Your task to perform on an android device: read, delete, or share a saved page in the chrome app Image 0: 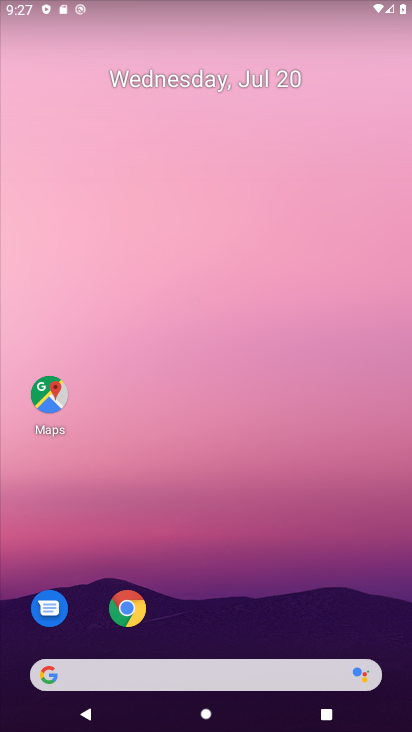
Step 0: drag from (278, 523) to (194, 104)
Your task to perform on an android device: read, delete, or share a saved page in the chrome app Image 1: 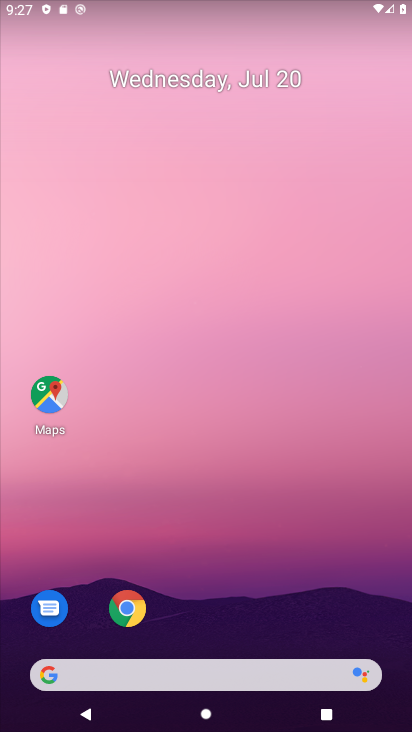
Step 1: drag from (206, 370) to (167, 122)
Your task to perform on an android device: read, delete, or share a saved page in the chrome app Image 2: 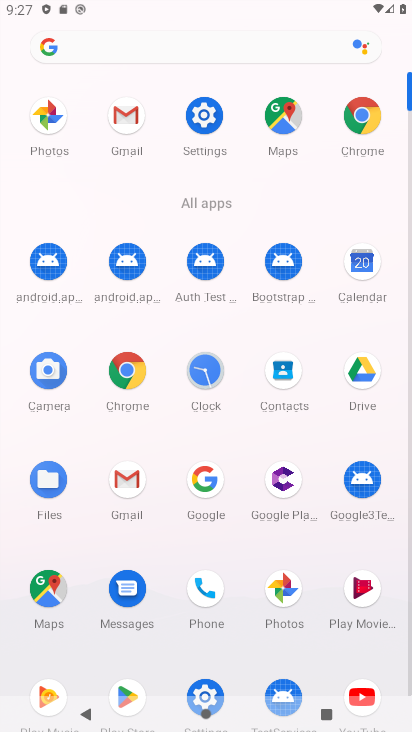
Step 2: click (130, 345)
Your task to perform on an android device: read, delete, or share a saved page in the chrome app Image 3: 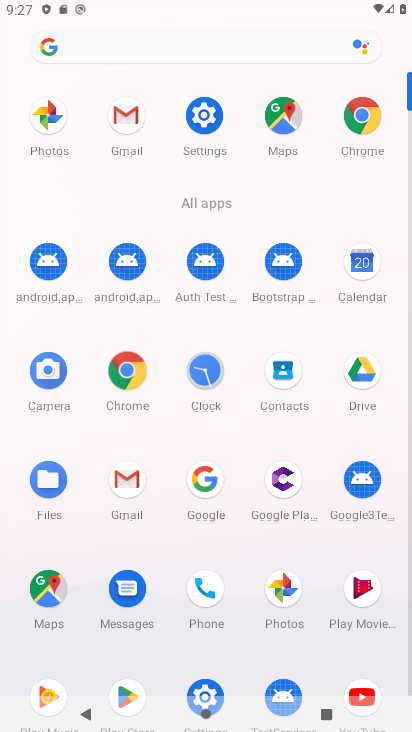
Step 3: click (138, 363)
Your task to perform on an android device: read, delete, or share a saved page in the chrome app Image 4: 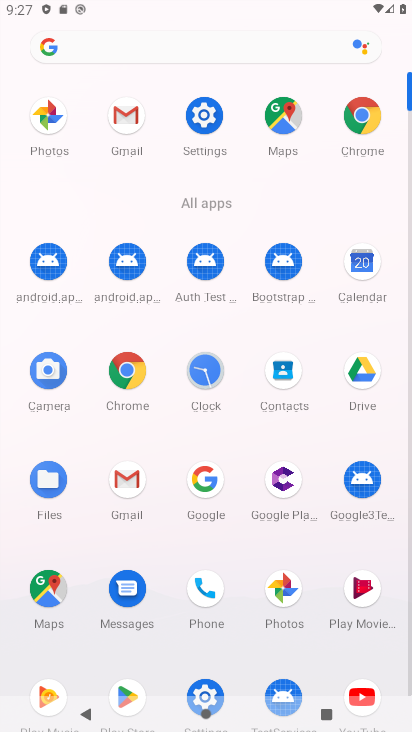
Step 4: click (138, 364)
Your task to perform on an android device: read, delete, or share a saved page in the chrome app Image 5: 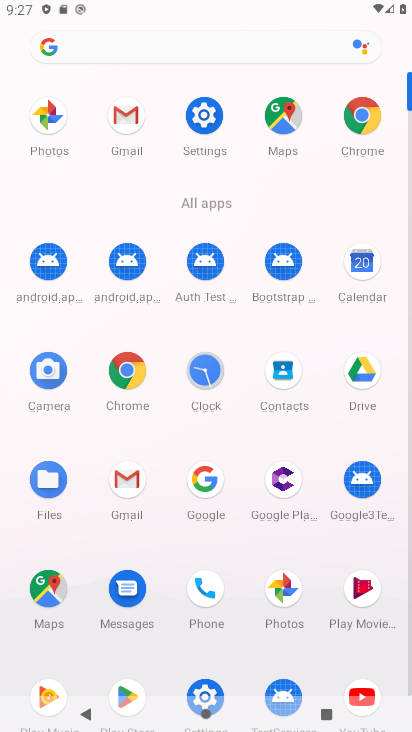
Step 5: click (138, 364)
Your task to perform on an android device: read, delete, or share a saved page in the chrome app Image 6: 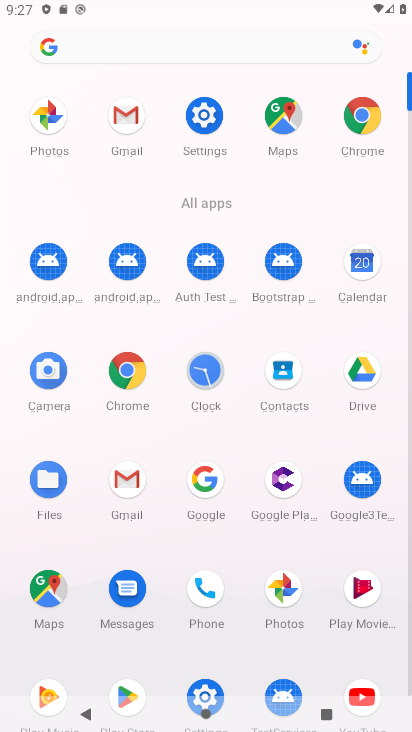
Step 6: click (138, 364)
Your task to perform on an android device: read, delete, or share a saved page in the chrome app Image 7: 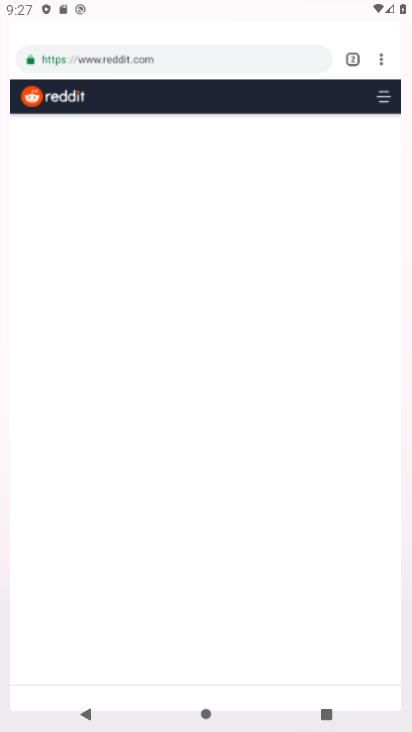
Step 7: click (123, 367)
Your task to perform on an android device: read, delete, or share a saved page in the chrome app Image 8: 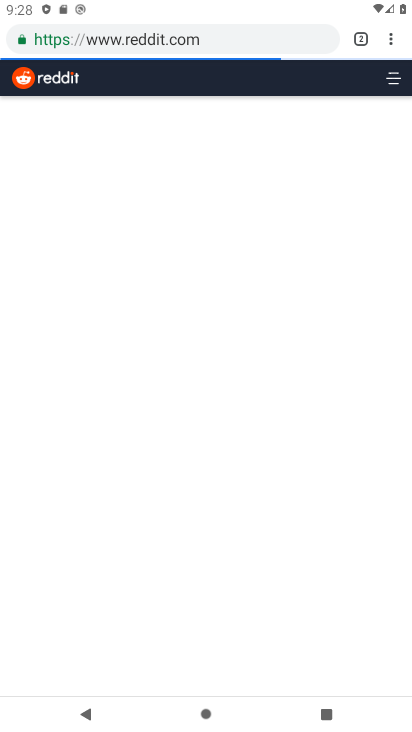
Step 8: drag from (389, 32) to (237, 255)
Your task to perform on an android device: read, delete, or share a saved page in the chrome app Image 9: 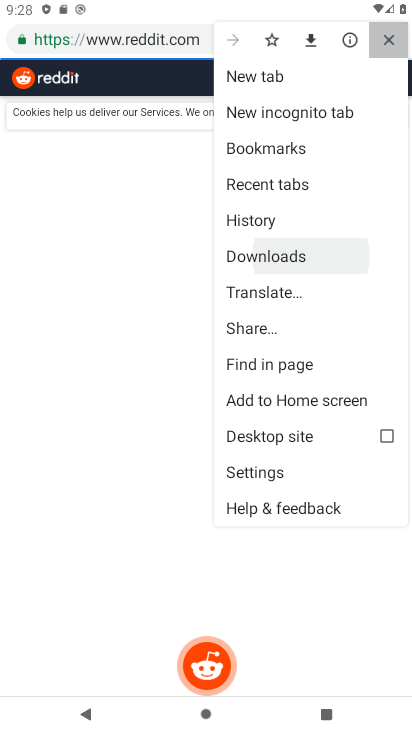
Step 9: click (240, 254)
Your task to perform on an android device: read, delete, or share a saved page in the chrome app Image 10: 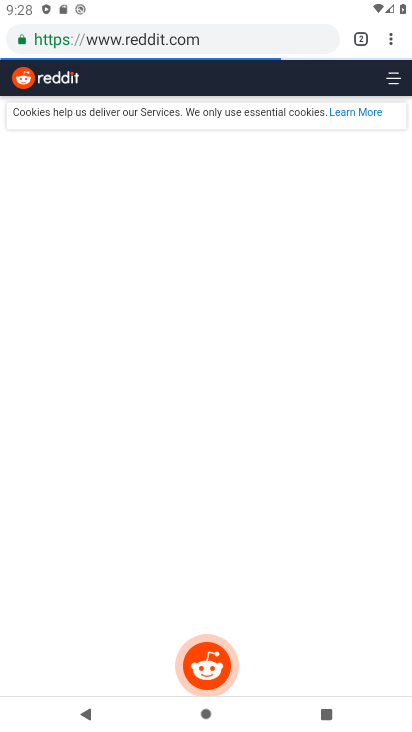
Step 10: click (241, 251)
Your task to perform on an android device: read, delete, or share a saved page in the chrome app Image 11: 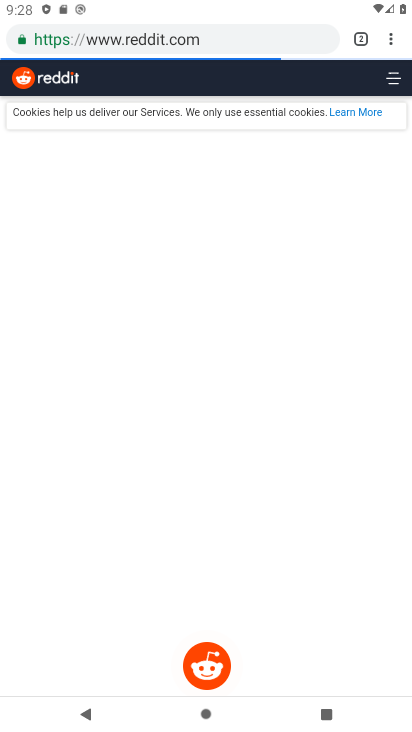
Step 11: click (242, 251)
Your task to perform on an android device: read, delete, or share a saved page in the chrome app Image 12: 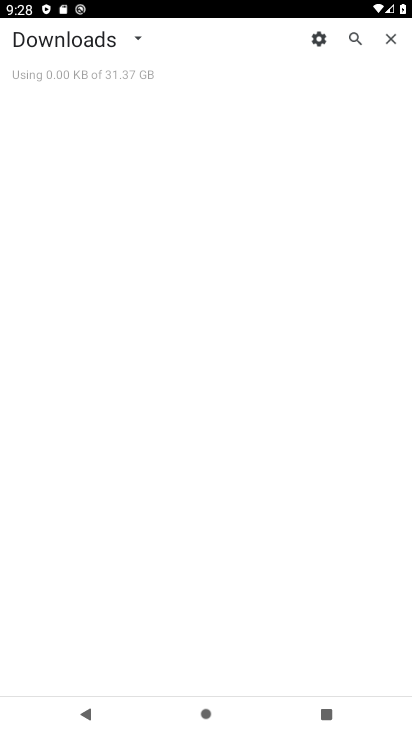
Step 12: click (136, 37)
Your task to perform on an android device: read, delete, or share a saved page in the chrome app Image 13: 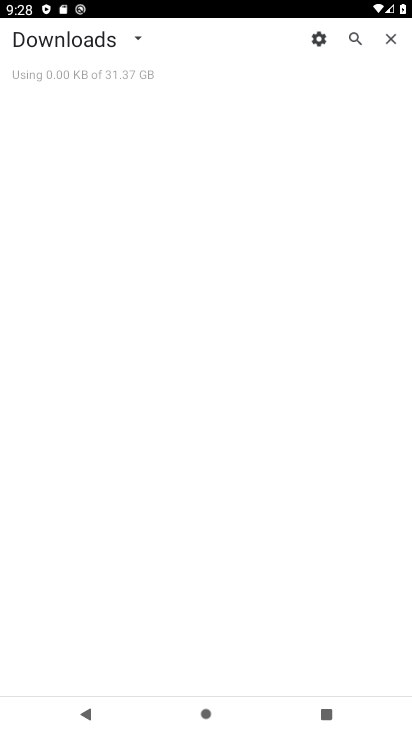
Step 13: click (136, 37)
Your task to perform on an android device: read, delete, or share a saved page in the chrome app Image 14: 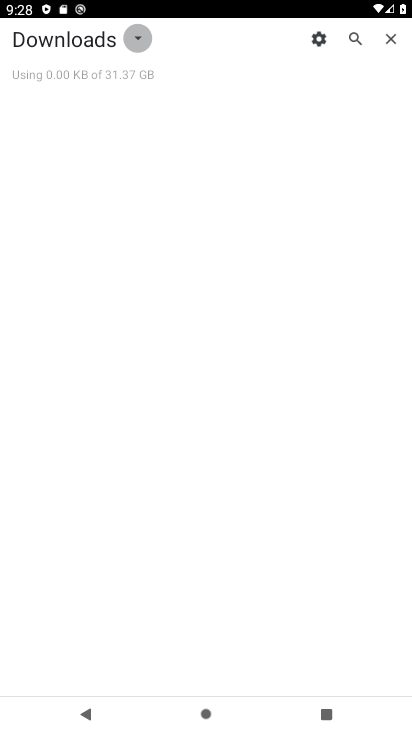
Step 14: click (136, 37)
Your task to perform on an android device: read, delete, or share a saved page in the chrome app Image 15: 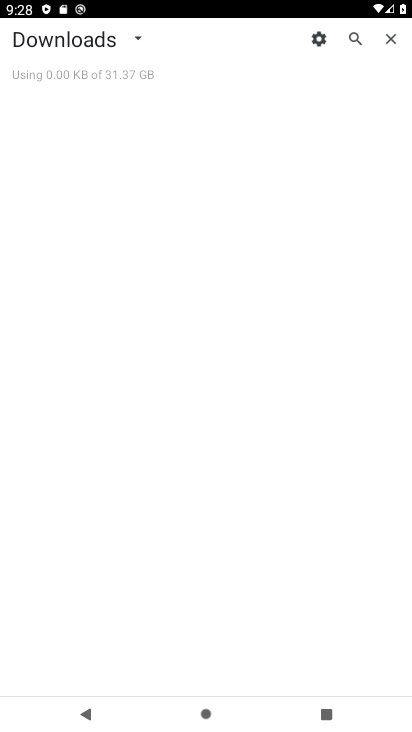
Step 15: click (132, 31)
Your task to perform on an android device: read, delete, or share a saved page in the chrome app Image 16: 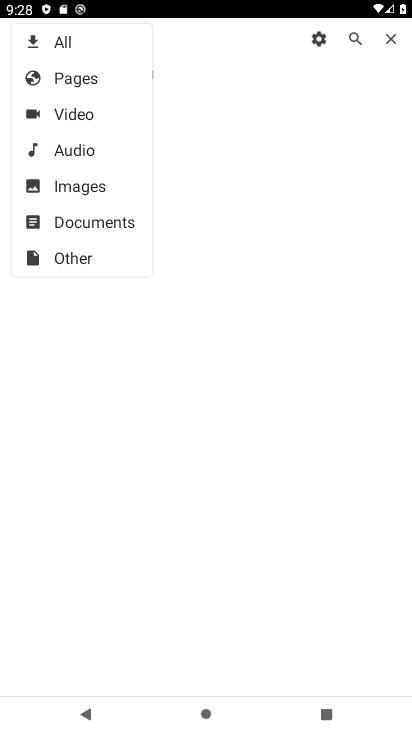
Step 16: click (72, 113)
Your task to perform on an android device: read, delete, or share a saved page in the chrome app Image 17: 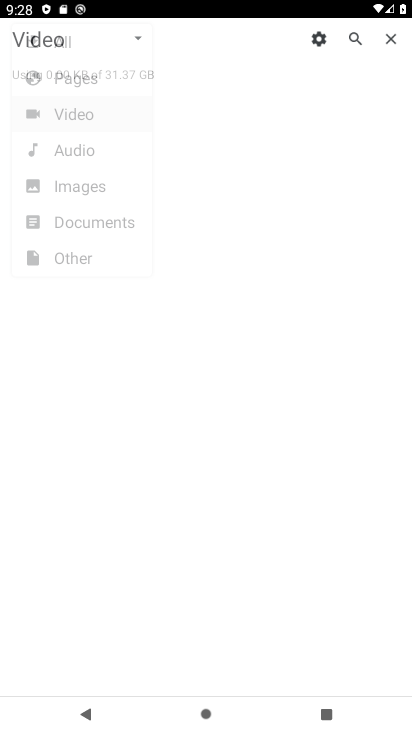
Step 17: click (72, 106)
Your task to perform on an android device: read, delete, or share a saved page in the chrome app Image 18: 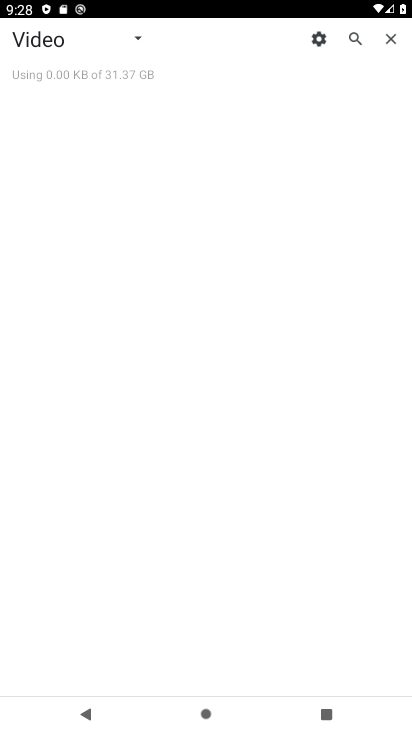
Step 18: click (73, 105)
Your task to perform on an android device: read, delete, or share a saved page in the chrome app Image 19: 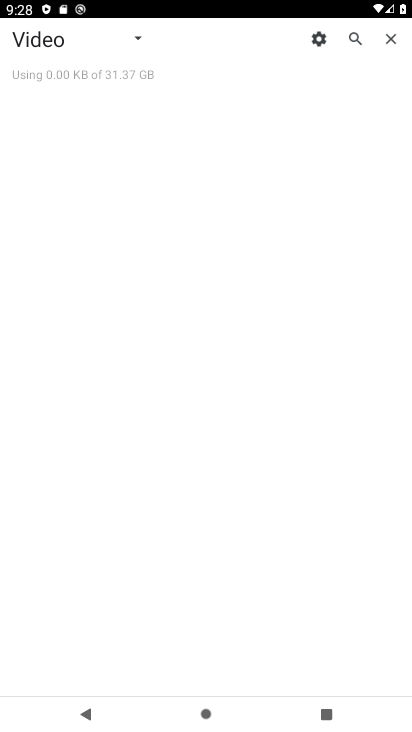
Step 19: task complete